Your task to perform on an android device: Open Amazon Image 0: 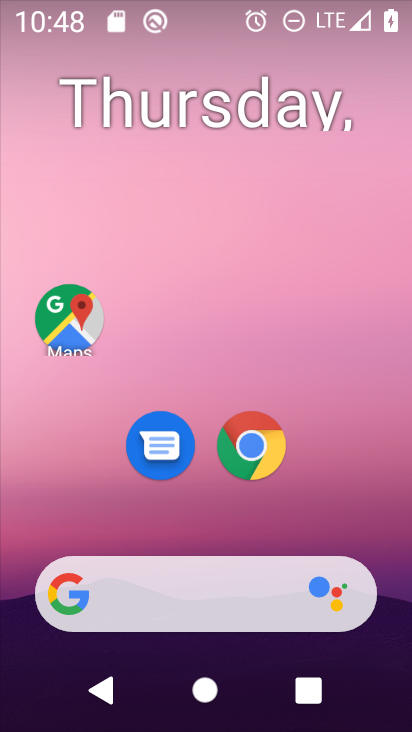
Step 0: drag from (391, 633) to (326, 27)
Your task to perform on an android device: Open Amazon Image 1: 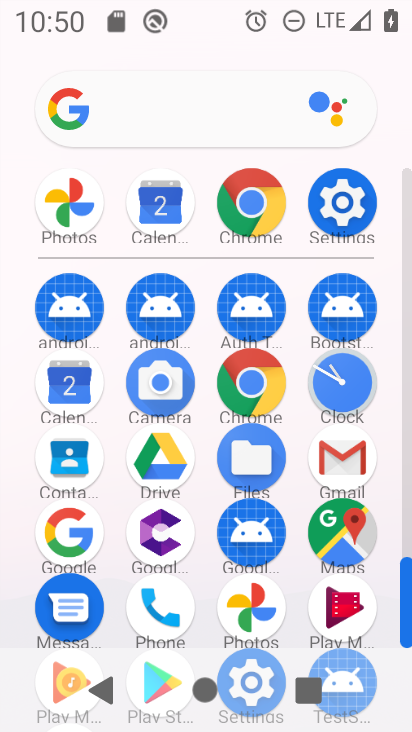
Step 1: click (50, 531)
Your task to perform on an android device: Open Amazon Image 2: 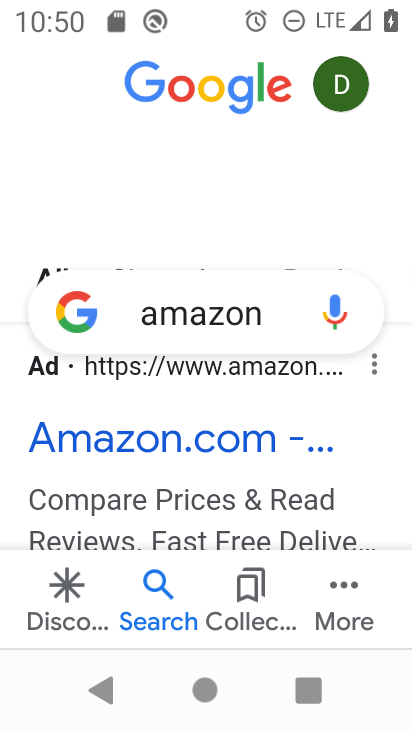
Step 2: task complete